Your task to perform on an android device: check storage Image 0: 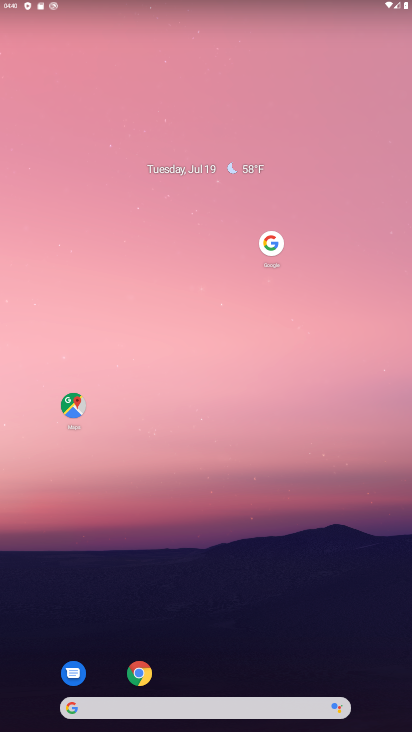
Step 0: press home button
Your task to perform on an android device: check storage Image 1: 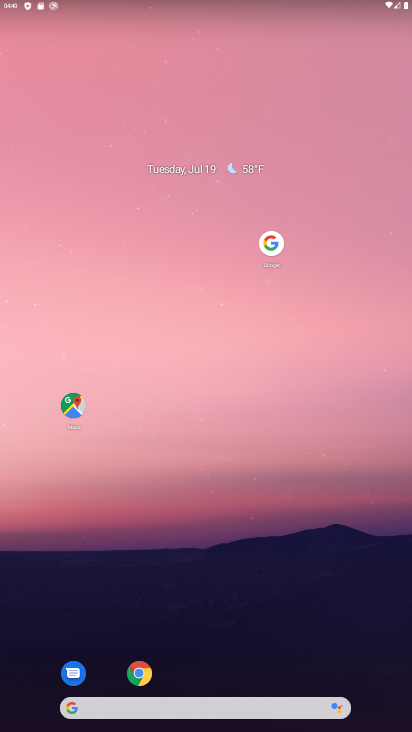
Step 1: drag from (249, 575) to (216, 110)
Your task to perform on an android device: check storage Image 2: 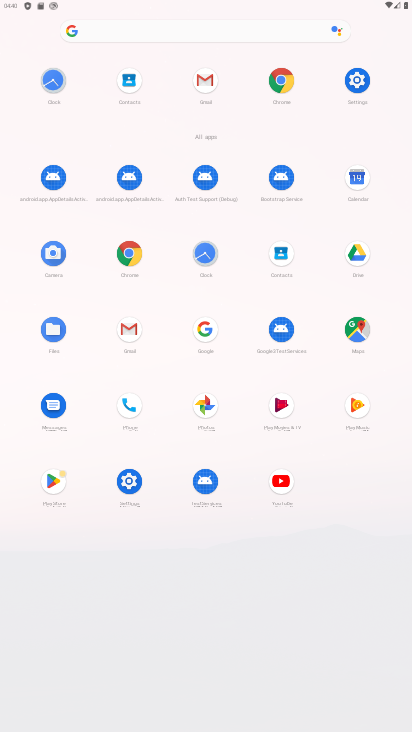
Step 2: click (362, 79)
Your task to perform on an android device: check storage Image 3: 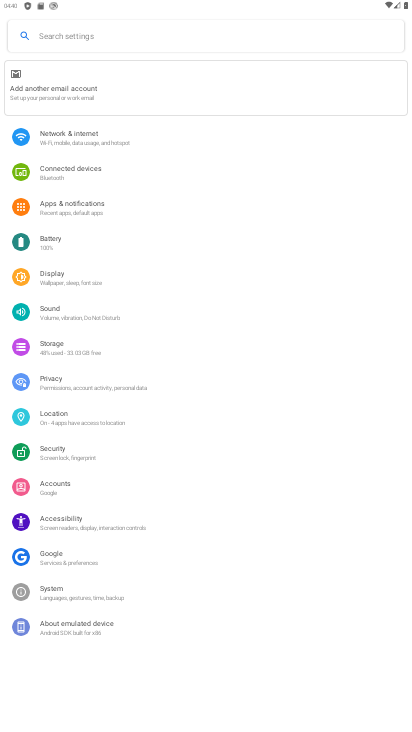
Step 3: click (72, 345)
Your task to perform on an android device: check storage Image 4: 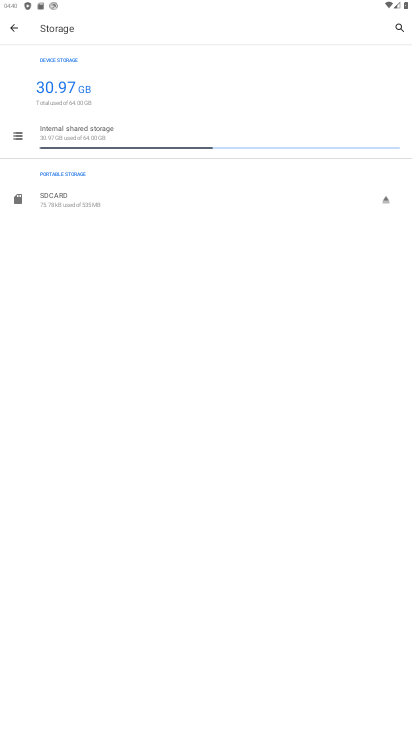
Step 4: task complete